Your task to perform on an android device: turn vacation reply on in the gmail app Image 0: 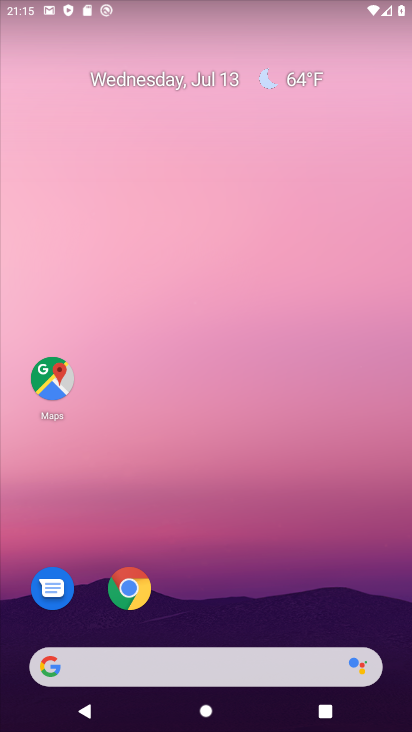
Step 0: drag from (236, 622) to (259, 5)
Your task to perform on an android device: turn vacation reply on in the gmail app Image 1: 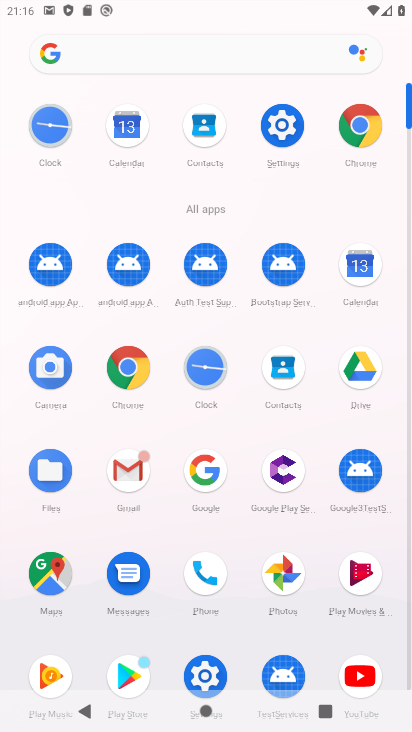
Step 1: click (129, 473)
Your task to perform on an android device: turn vacation reply on in the gmail app Image 2: 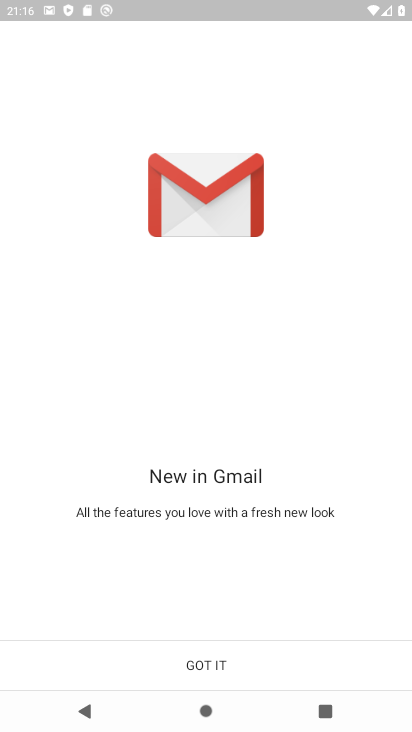
Step 2: click (209, 673)
Your task to perform on an android device: turn vacation reply on in the gmail app Image 3: 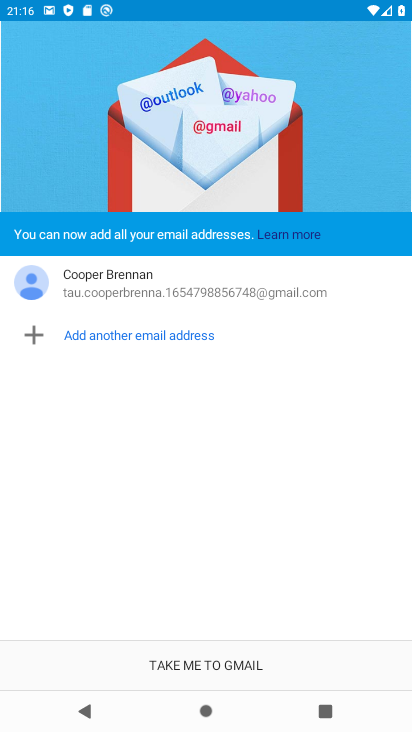
Step 3: click (220, 663)
Your task to perform on an android device: turn vacation reply on in the gmail app Image 4: 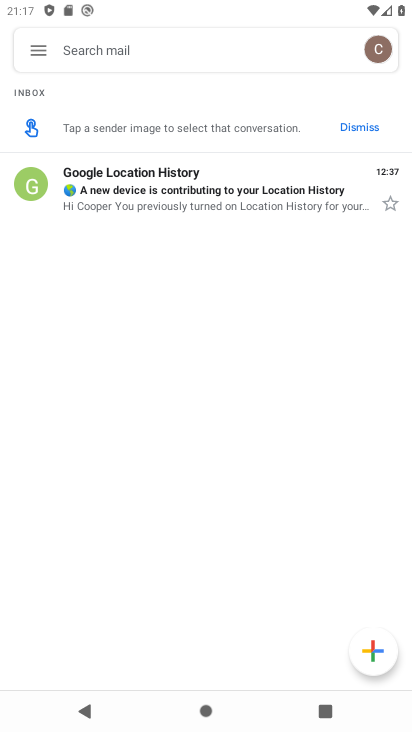
Step 4: click (28, 50)
Your task to perform on an android device: turn vacation reply on in the gmail app Image 5: 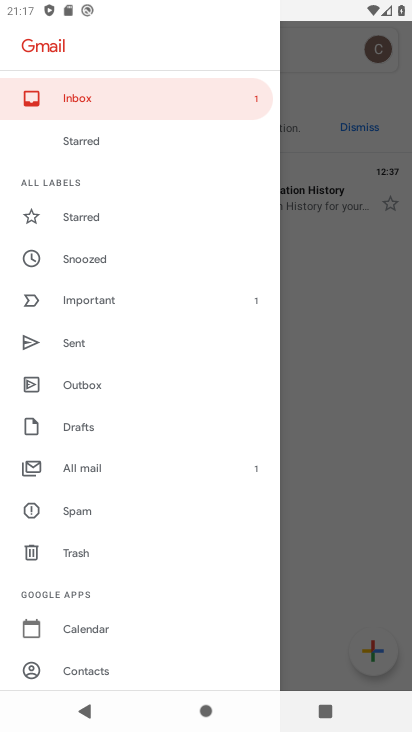
Step 5: drag from (205, 334) to (233, 125)
Your task to perform on an android device: turn vacation reply on in the gmail app Image 6: 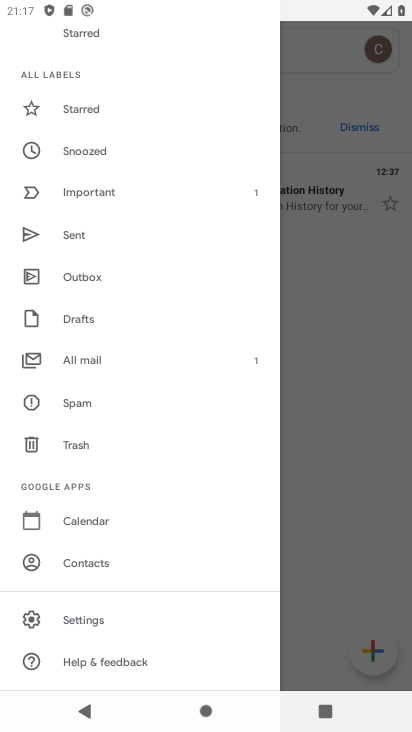
Step 6: click (98, 621)
Your task to perform on an android device: turn vacation reply on in the gmail app Image 7: 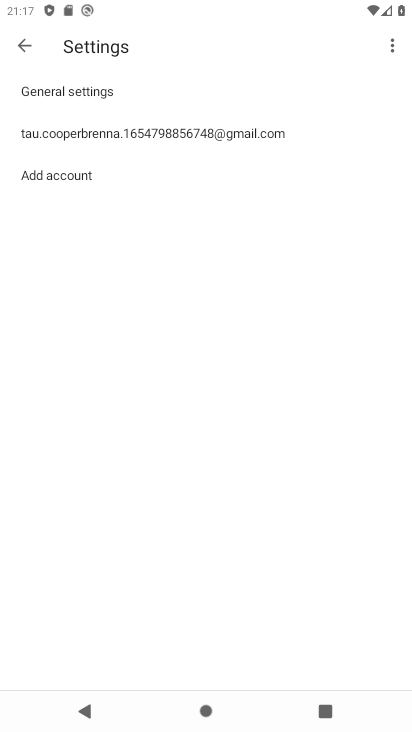
Step 7: click (172, 139)
Your task to perform on an android device: turn vacation reply on in the gmail app Image 8: 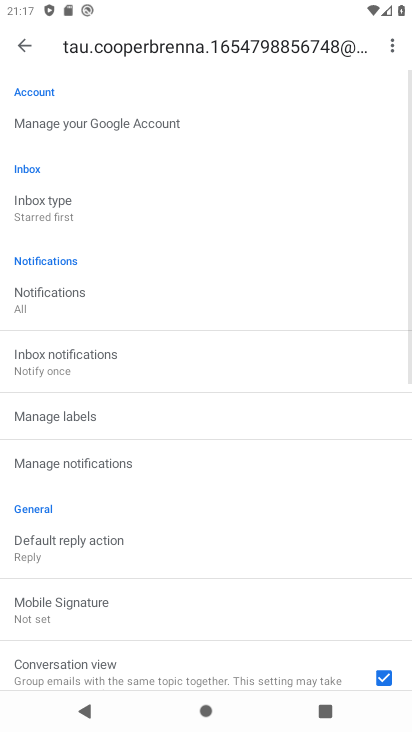
Step 8: drag from (171, 657) to (229, 124)
Your task to perform on an android device: turn vacation reply on in the gmail app Image 9: 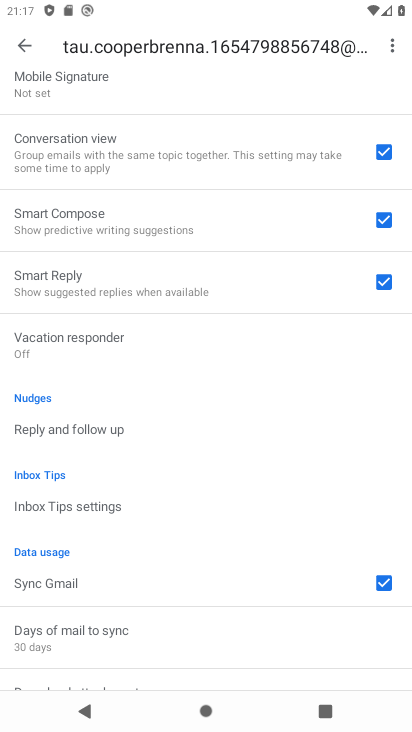
Step 9: click (119, 338)
Your task to perform on an android device: turn vacation reply on in the gmail app Image 10: 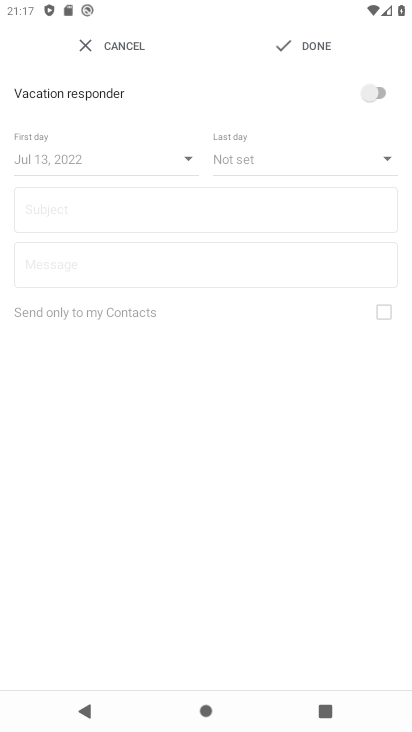
Step 10: click (359, 92)
Your task to perform on an android device: turn vacation reply on in the gmail app Image 11: 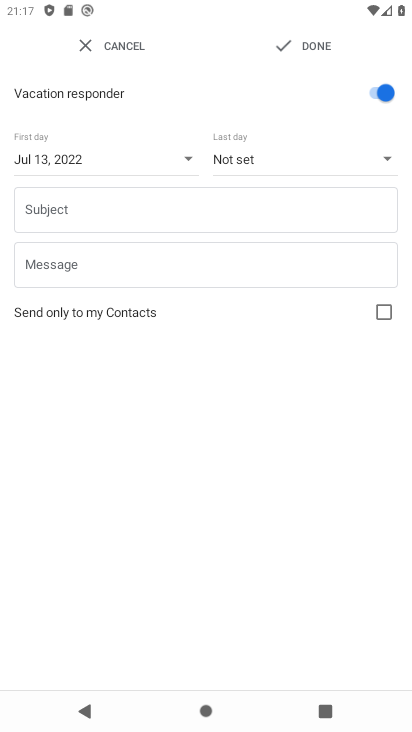
Step 11: task complete